Your task to perform on an android device: Show me productivity apps on the Play Store Image 0: 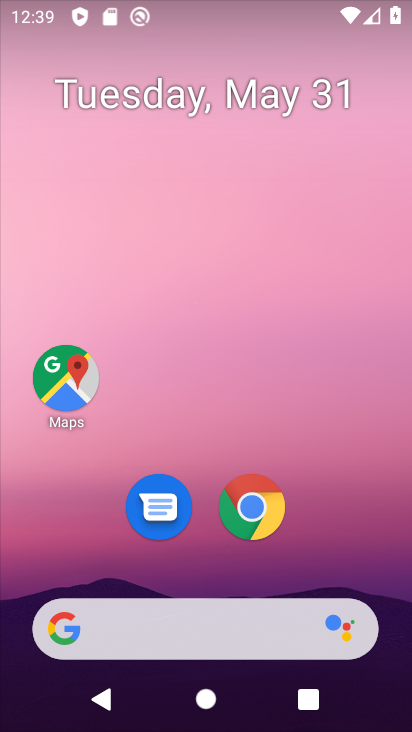
Step 0: drag from (367, 508) to (398, 81)
Your task to perform on an android device: Show me productivity apps on the Play Store Image 1: 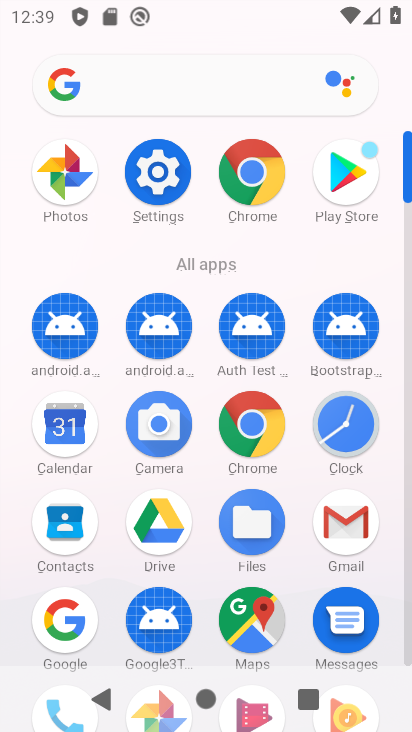
Step 1: click (331, 173)
Your task to perform on an android device: Show me productivity apps on the Play Store Image 2: 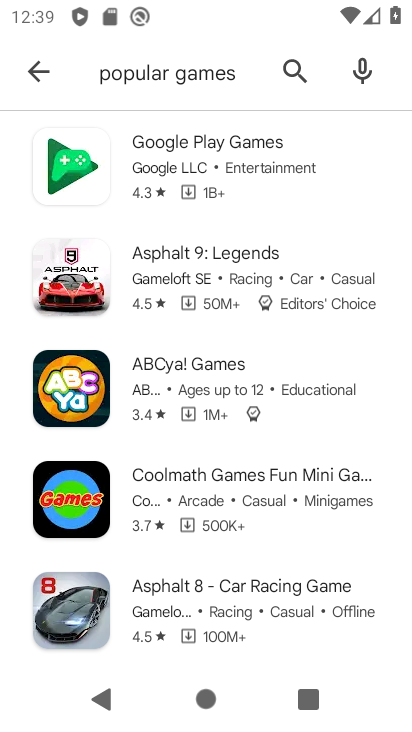
Step 2: click (37, 69)
Your task to perform on an android device: Show me productivity apps on the Play Store Image 3: 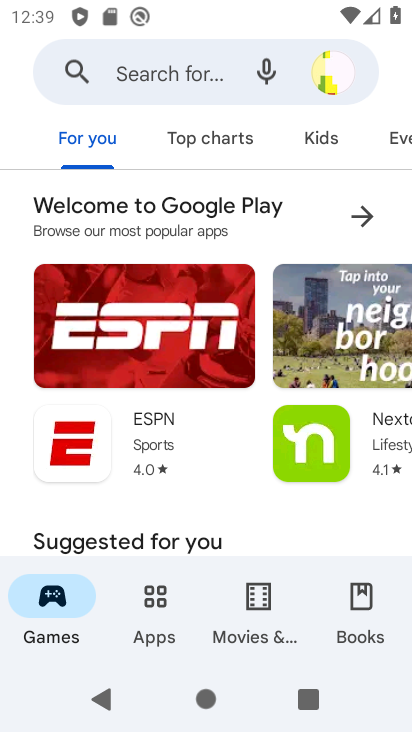
Step 3: click (169, 71)
Your task to perform on an android device: Show me productivity apps on the Play Store Image 4: 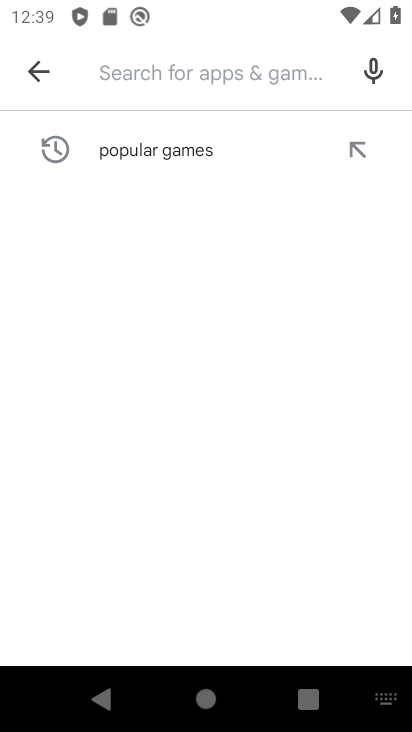
Step 4: type " productivity apps"
Your task to perform on an android device: Show me productivity apps on the Play Store Image 5: 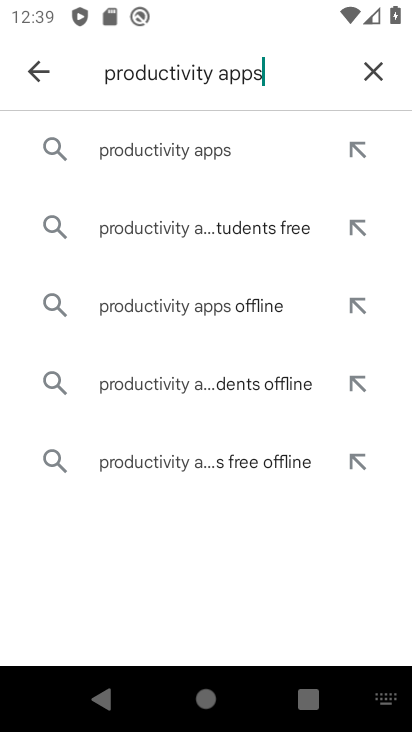
Step 5: click (60, 148)
Your task to perform on an android device: Show me productivity apps on the Play Store Image 6: 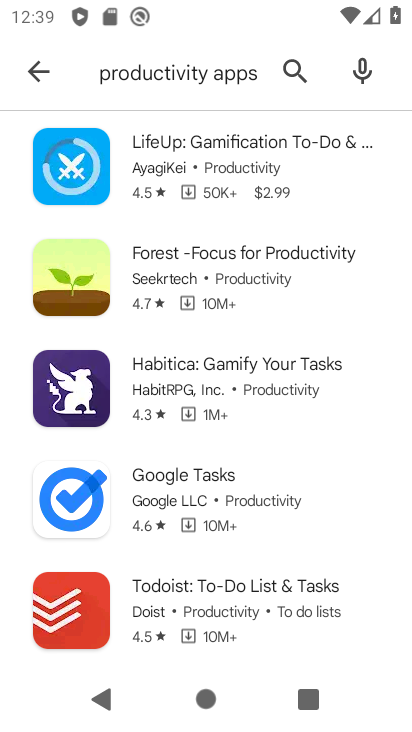
Step 6: task complete